Your task to perform on an android device: How do I get to the nearest Home Depot? Image 0: 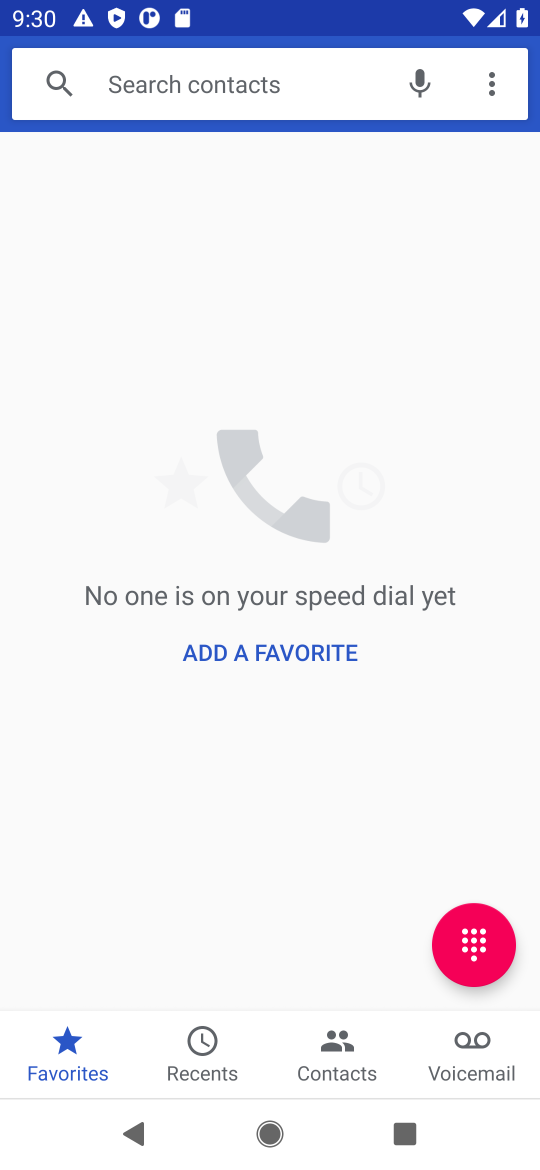
Step 0: press home button
Your task to perform on an android device: How do I get to the nearest Home Depot? Image 1: 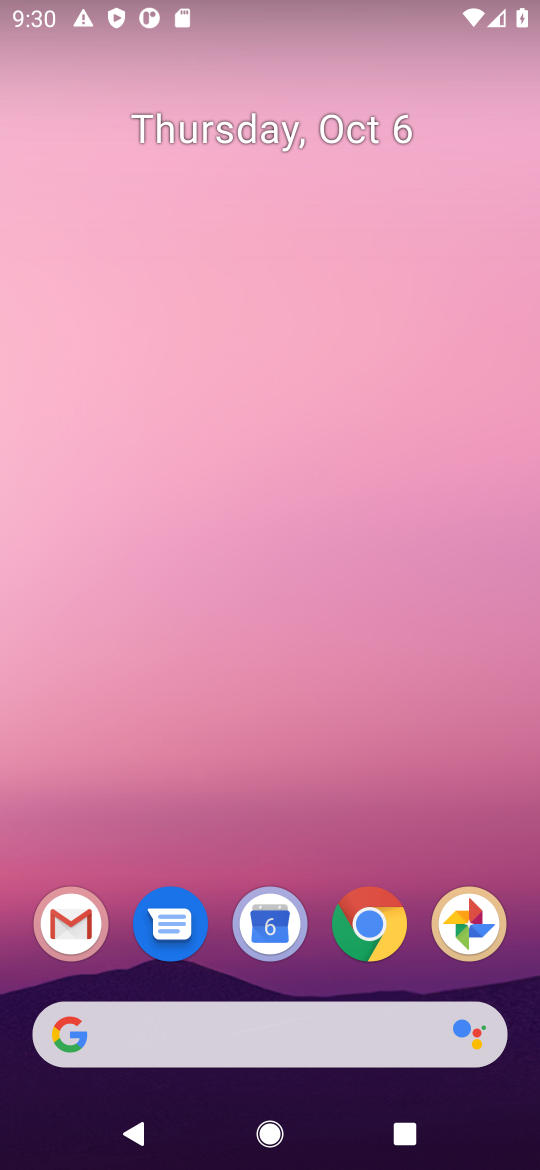
Step 1: click (361, 935)
Your task to perform on an android device: How do I get to the nearest Home Depot? Image 2: 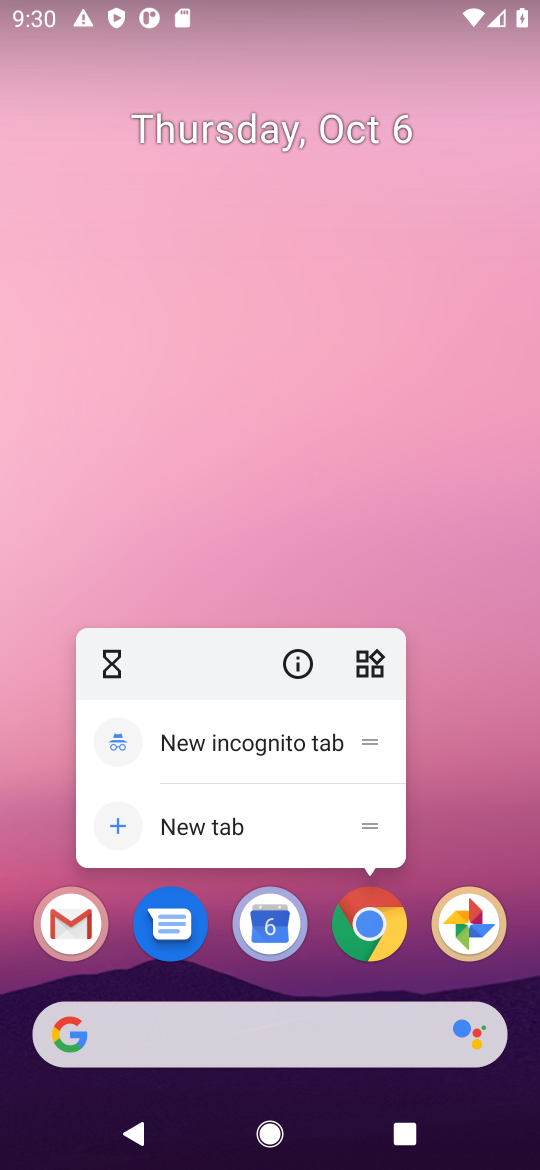
Step 2: click (368, 926)
Your task to perform on an android device: How do I get to the nearest Home Depot? Image 3: 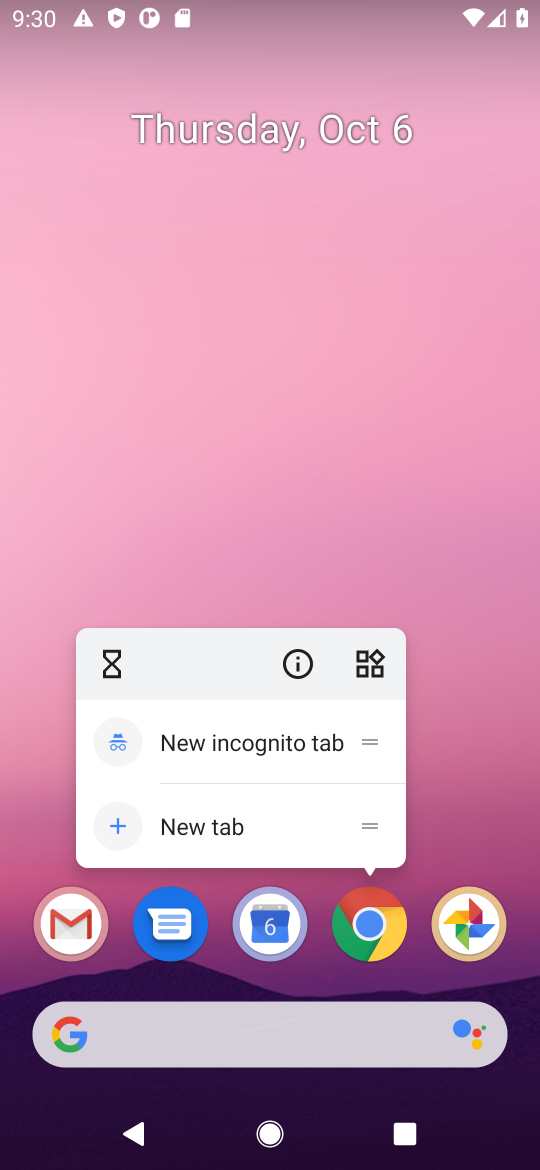
Step 3: click (368, 926)
Your task to perform on an android device: How do I get to the nearest Home Depot? Image 4: 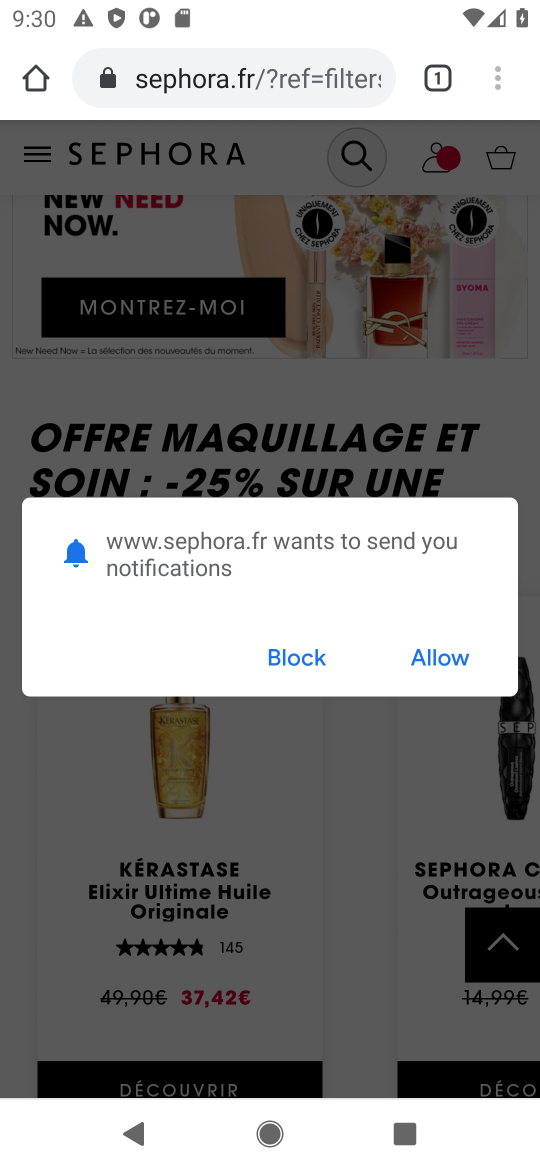
Step 4: click (311, 651)
Your task to perform on an android device: How do I get to the nearest Home Depot? Image 5: 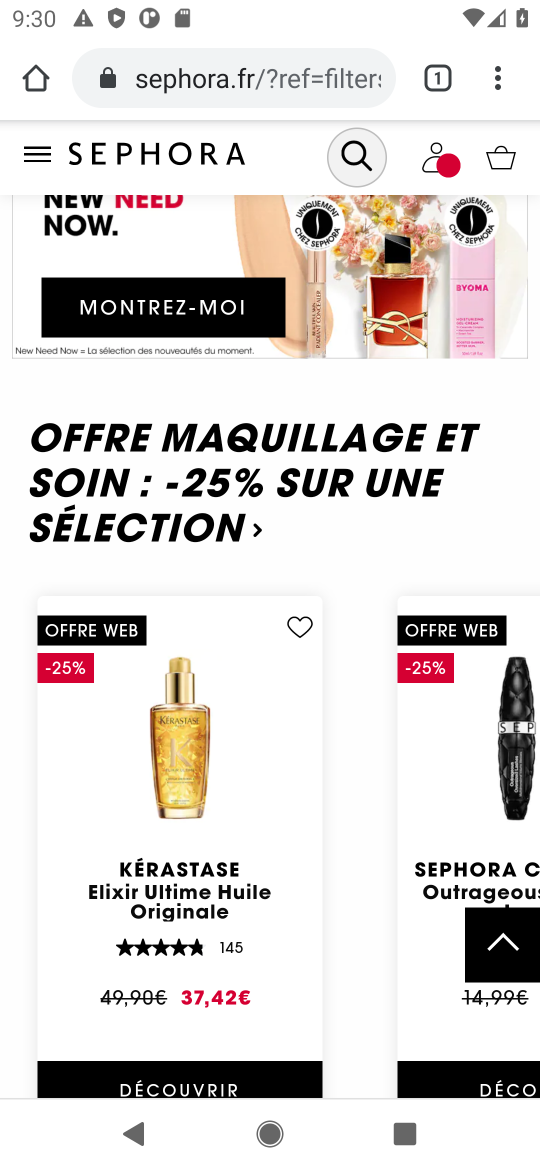
Step 5: click (290, 73)
Your task to perform on an android device: How do I get to the nearest Home Depot? Image 6: 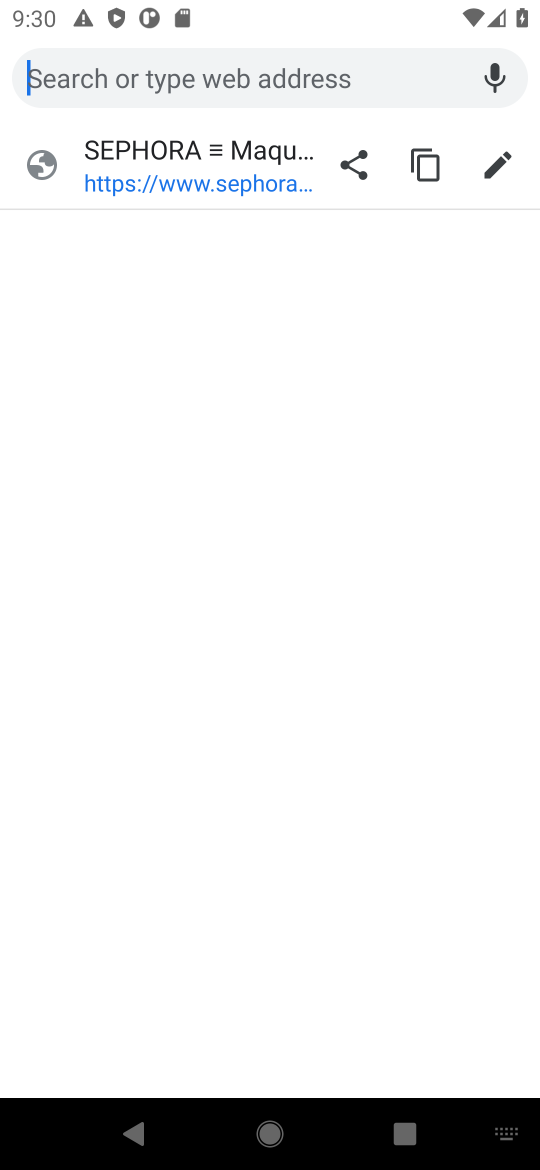
Step 6: type " nearest Home Depot"
Your task to perform on an android device: How do I get to the nearest Home Depot? Image 7: 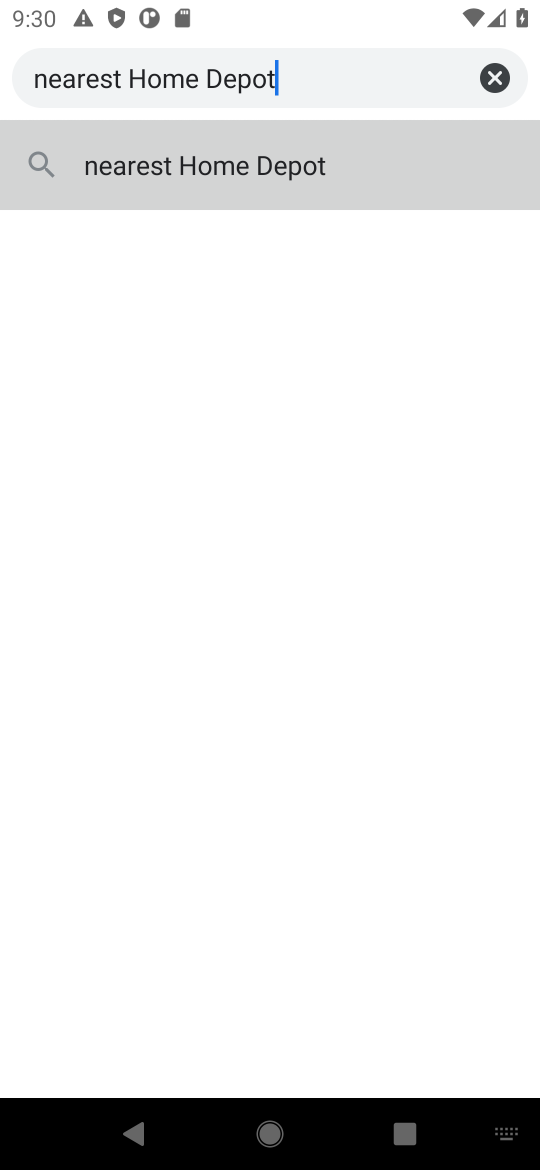
Step 7: click (205, 164)
Your task to perform on an android device: How do I get to the nearest Home Depot? Image 8: 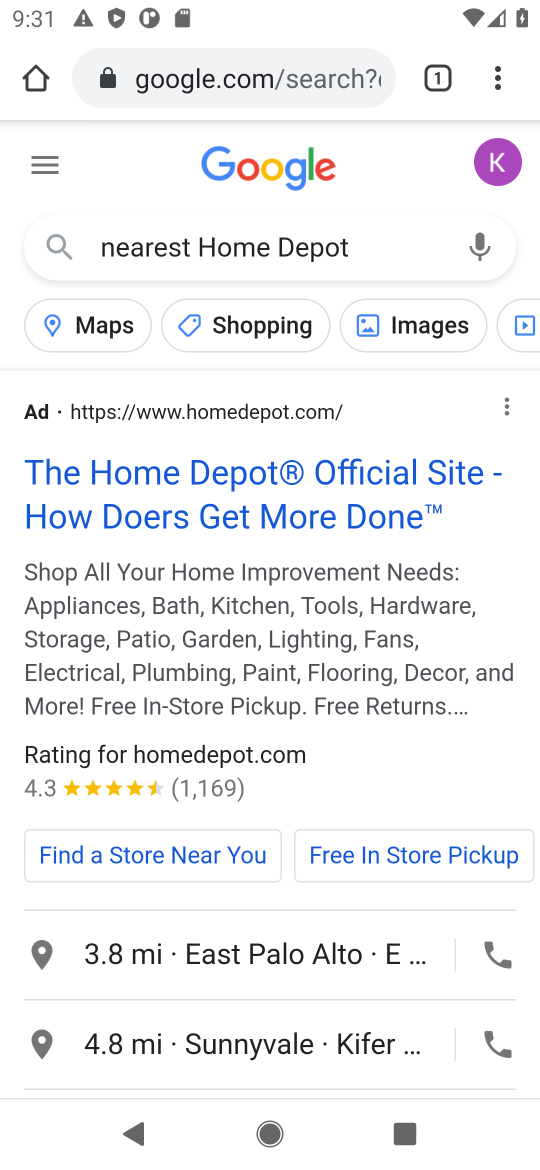
Step 8: click (144, 471)
Your task to perform on an android device: How do I get to the nearest Home Depot? Image 9: 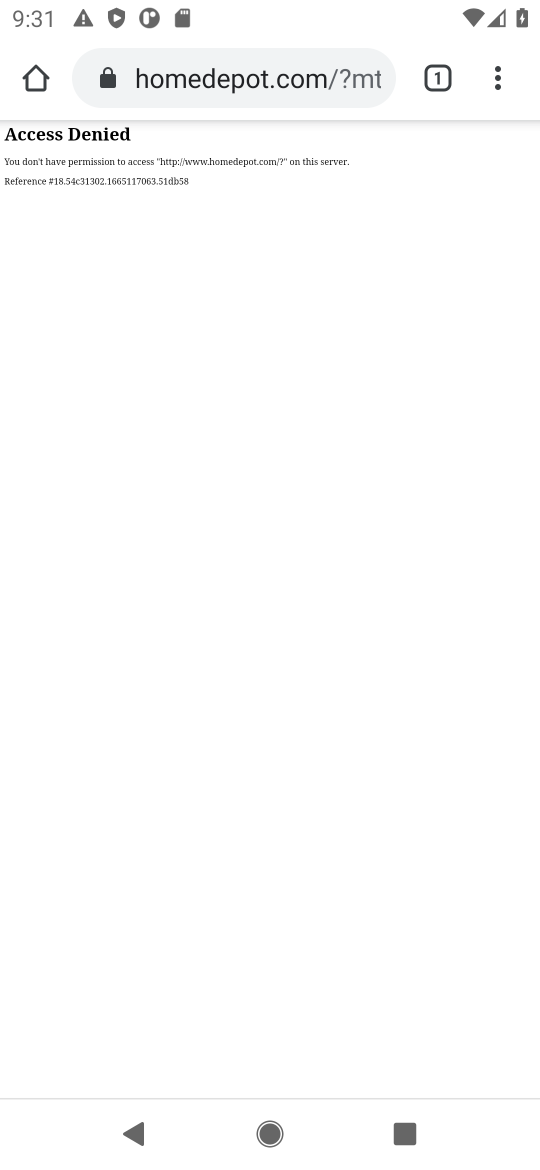
Step 9: press back button
Your task to perform on an android device: How do I get to the nearest Home Depot? Image 10: 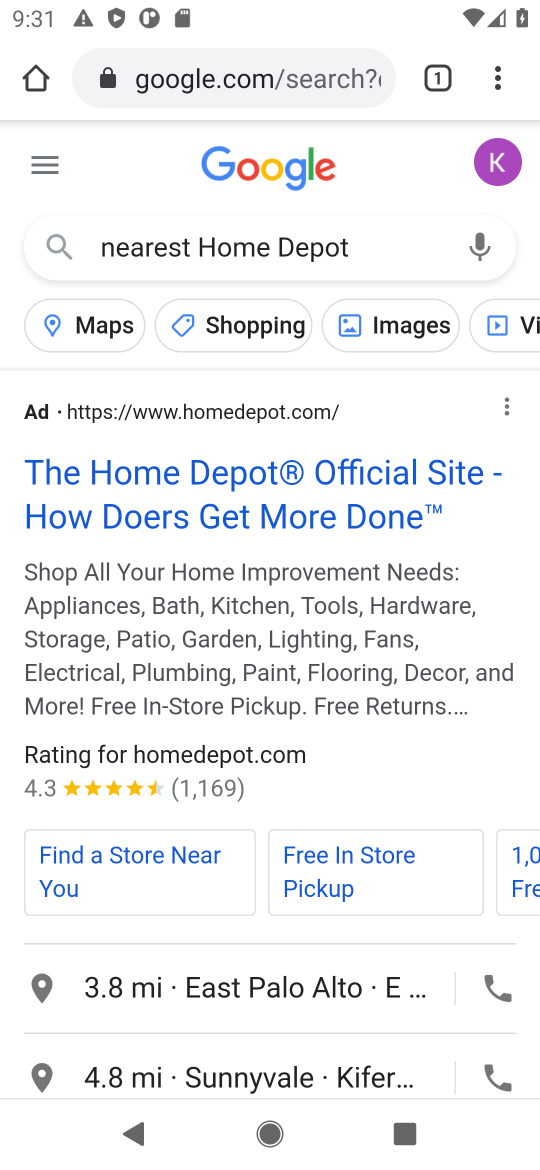
Step 10: drag from (261, 944) to (480, 208)
Your task to perform on an android device: How do I get to the nearest Home Depot? Image 11: 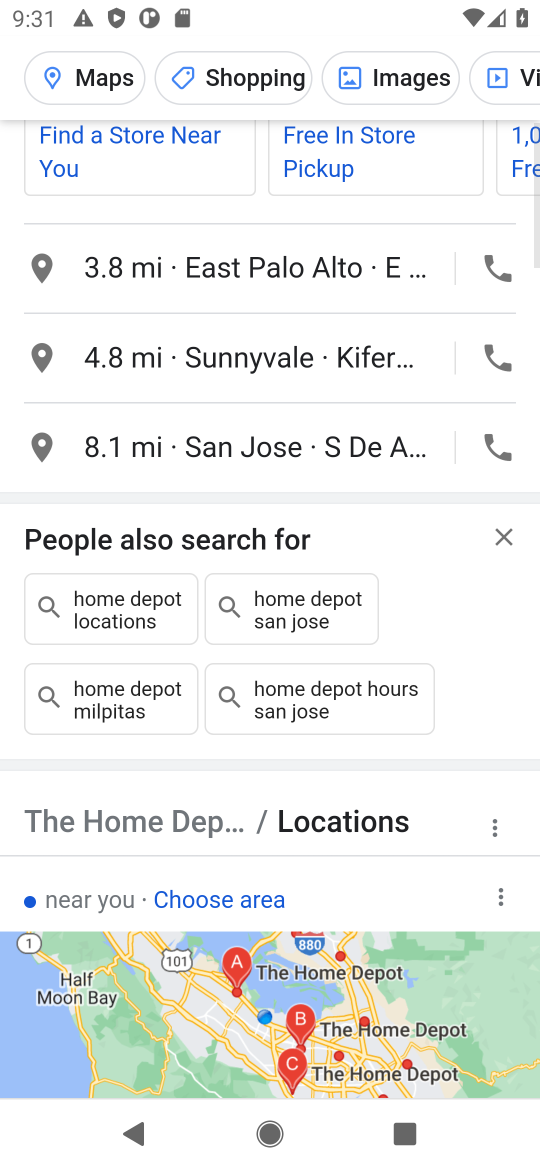
Step 11: drag from (186, 976) to (414, 176)
Your task to perform on an android device: How do I get to the nearest Home Depot? Image 12: 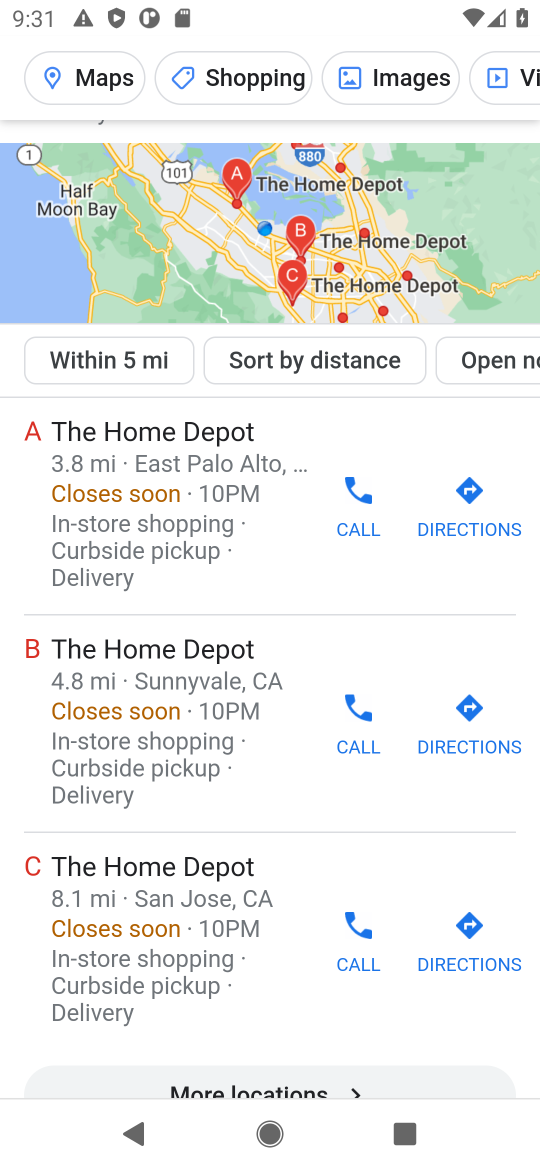
Step 12: click (146, 436)
Your task to perform on an android device: How do I get to the nearest Home Depot? Image 13: 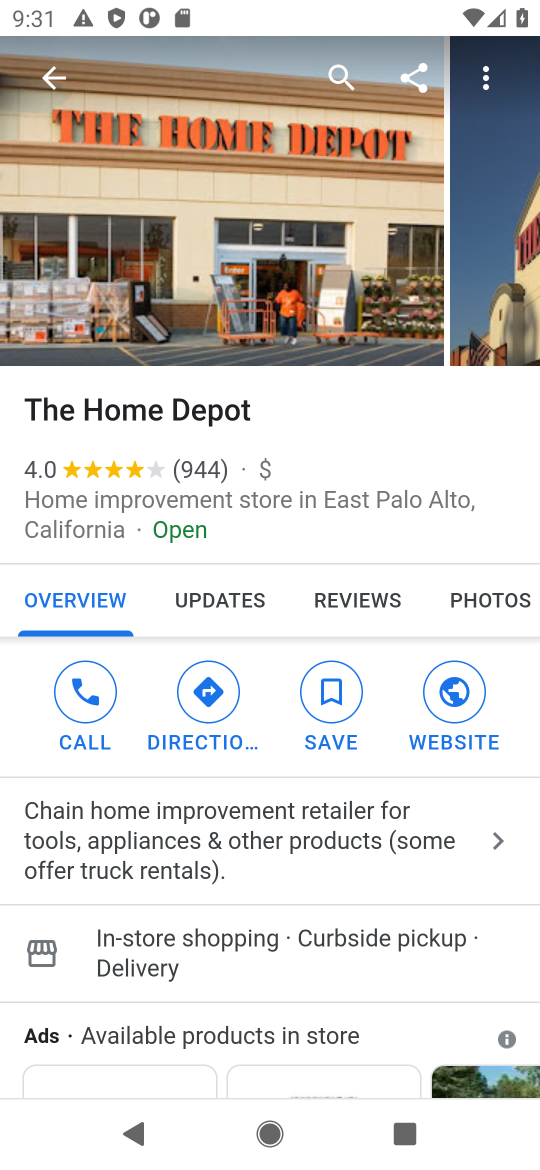
Step 13: task complete